Your task to perform on an android device: turn off javascript in the chrome app Image 0: 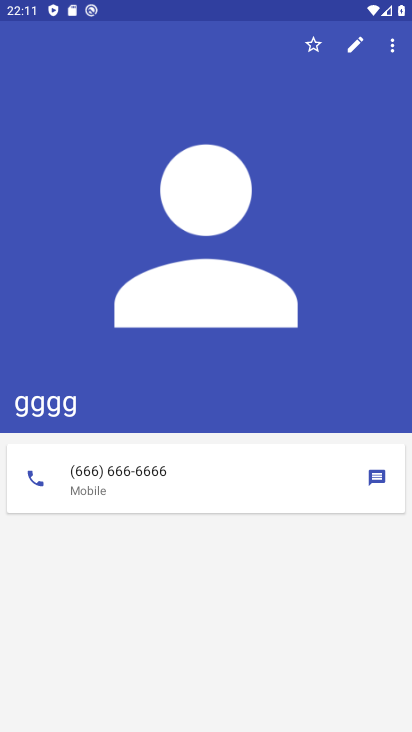
Step 0: drag from (356, 7) to (369, 424)
Your task to perform on an android device: turn off javascript in the chrome app Image 1: 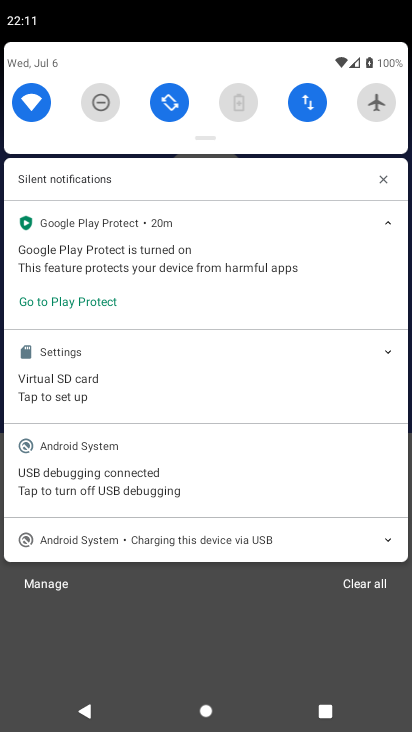
Step 1: drag from (351, 137) to (347, 602)
Your task to perform on an android device: turn off javascript in the chrome app Image 2: 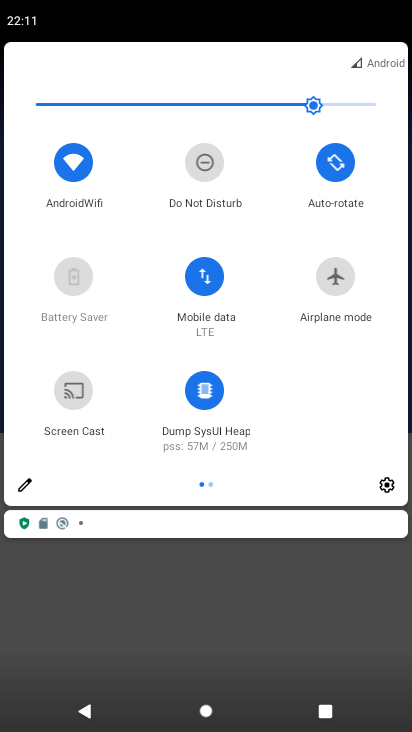
Step 2: click (24, 480)
Your task to perform on an android device: turn off javascript in the chrome app Image 3: 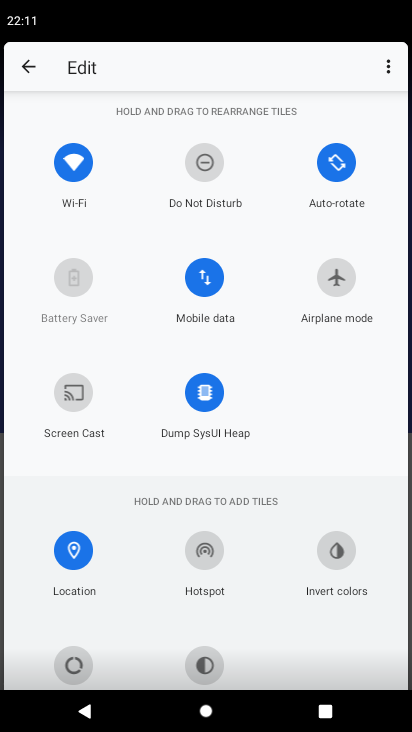
Step 3: task complete